Your task to perform on an android device: turn off translation in the chrome app Image 0: 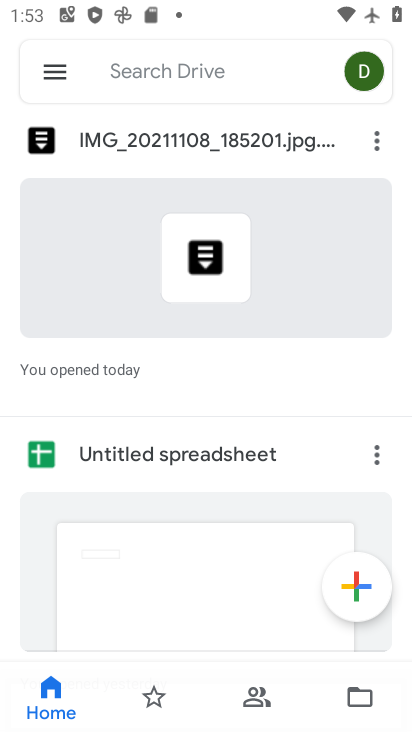
Step 0: press home button
Your task to perform on an android device: turn off translation in the chrome app Image 1: 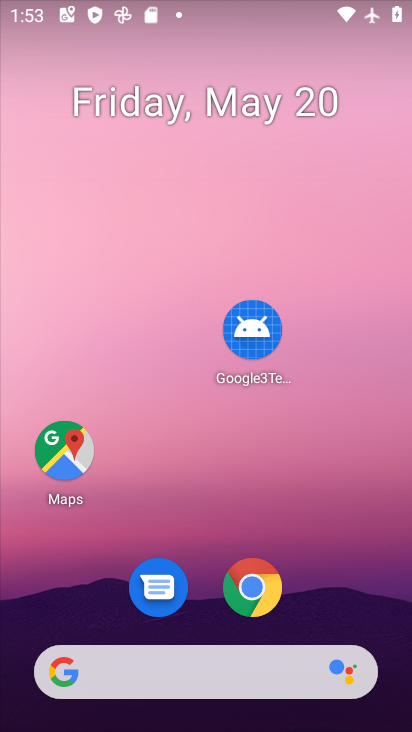
Step 1: click (251, 579)
Your task to perform on an android device: turn off translation in the chrome app Image 2: 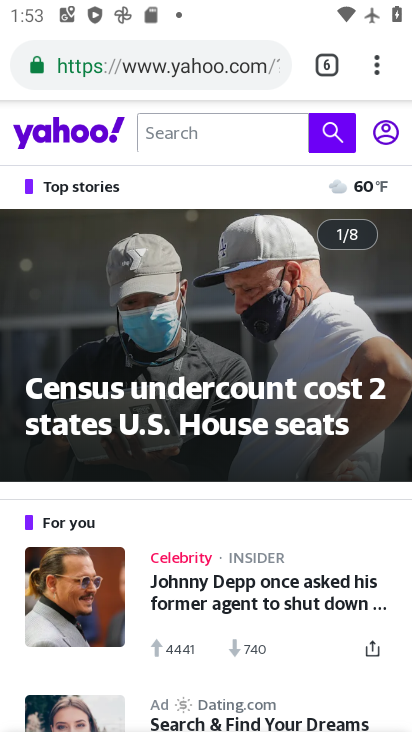
Step 2: click (376, 62)
Your task to perform on an android device: turn off translation in the chrome app Image 3: 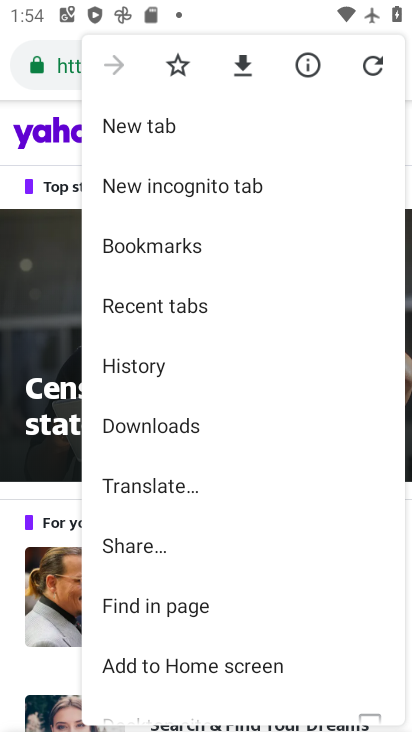
Step 3: drag from (238, 543) to (267, 306)
Your task to perform on an android device: turn off translation in the chrome app Image 4: 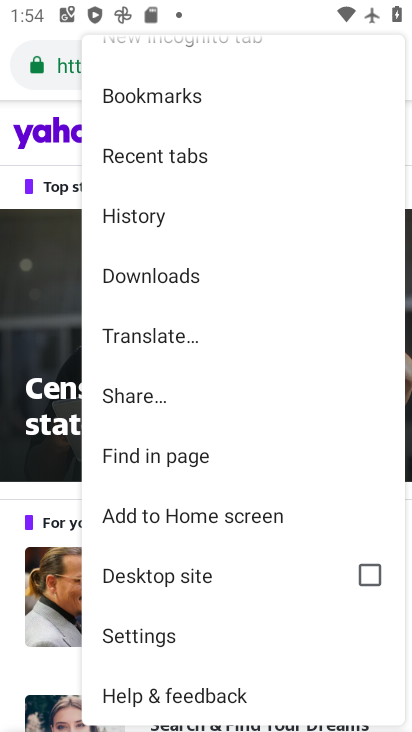
Step 4: click (116, 634)
Your task to perform on an android device: turn off translation in the chrome app Image 5: 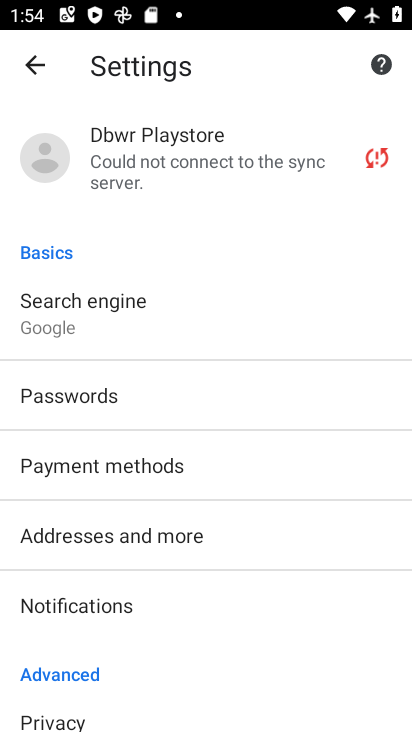
Step 5: drag from (298, 508) to (301, 278)
Your task to perform on an android device: turn off translation in the chrome app Image 6: 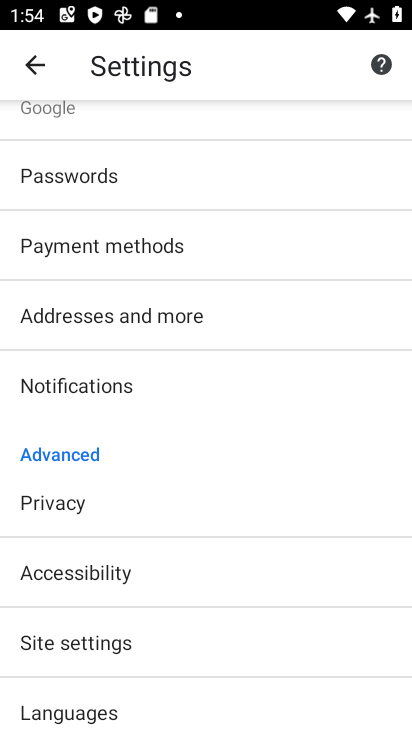
Step 6: click (225, 660)
Your task to perform on an android device: turn off translation in the chrome app Image 7: 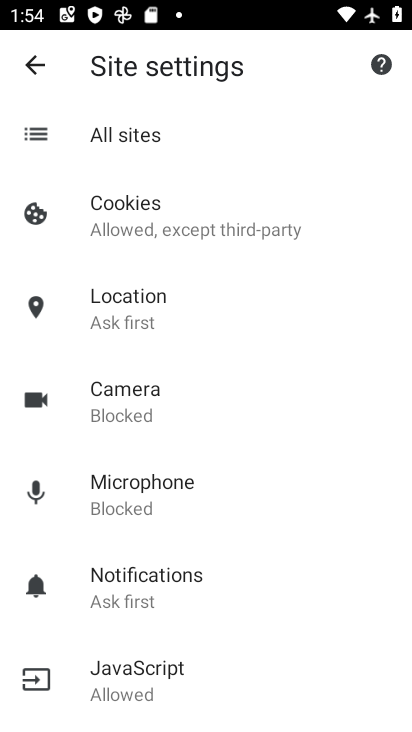
Step 7: click (32, 64)
Your task to perform on an android device: turn off translation in the chrome app Image 8: 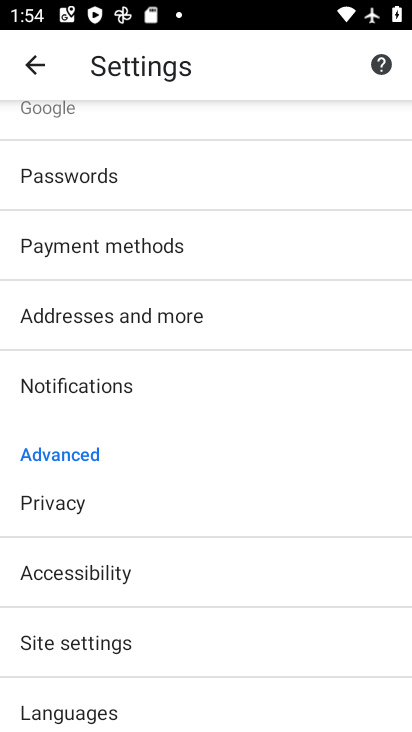
Step 8: drag from (234, 417) to (295, 98)
Your task to perform on an android device: turn off translation in the chrome app Image 9: 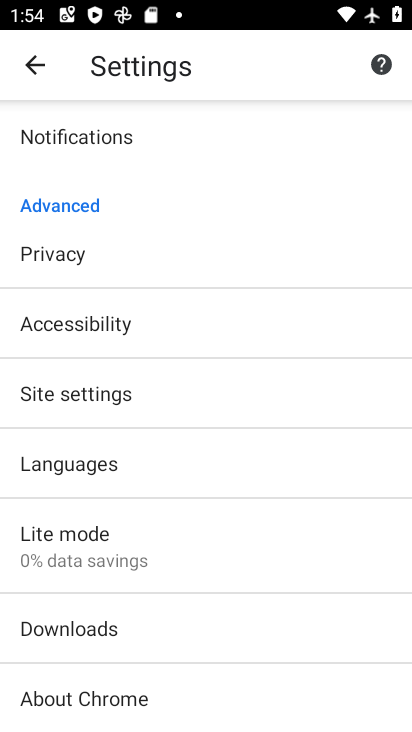
Step 9: click (68, 461)
Your task to perform on an android device: turn off translation in the chrome app Image 10: 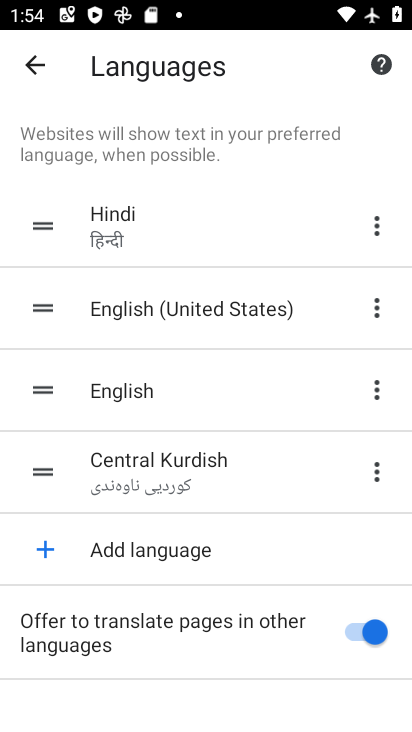
Step 10: click (371, 631)
Your task to perform on an android device: turn off translation in the chrome app Image 11: 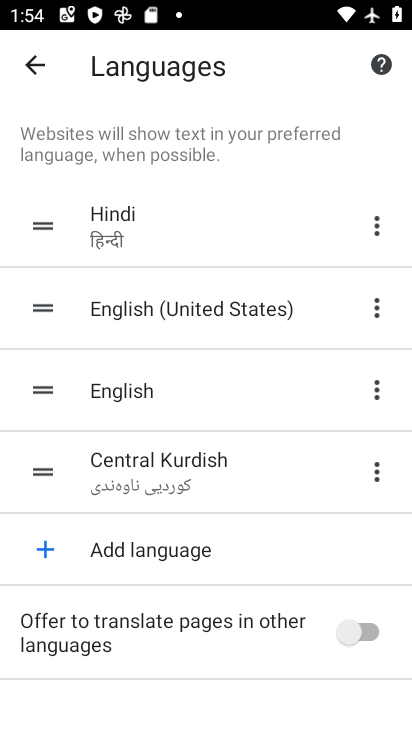
Step 11: task complete